Your task to perform on an android device: turn off wifi Image 0: 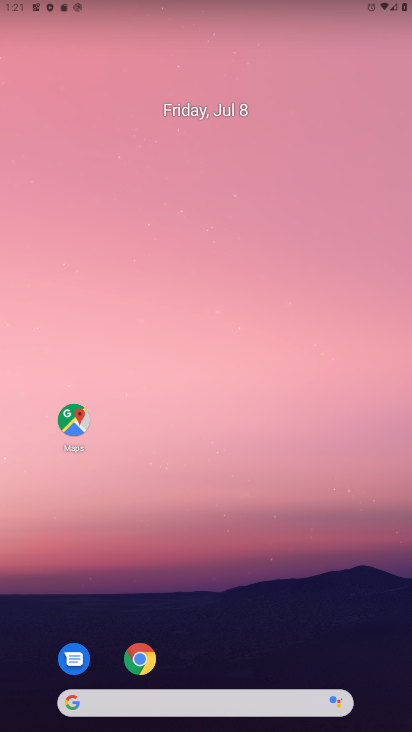
Step 0: drag from (227, 602) to (164, 174)
Your task to perform on an android device: turn off wifi Image 1: 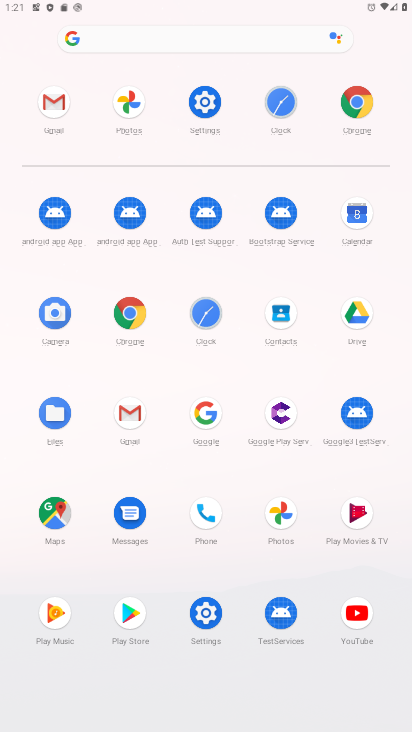
Step 1: click (209, 103)
Your task to perform on an android device: turn off wifi Image 2: 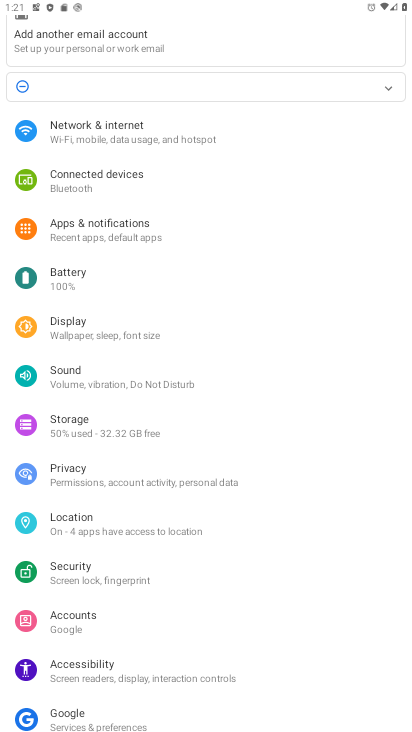
Step 2: click (109, 77)
Your task to perform on an android device: turn off wifi Image 3: 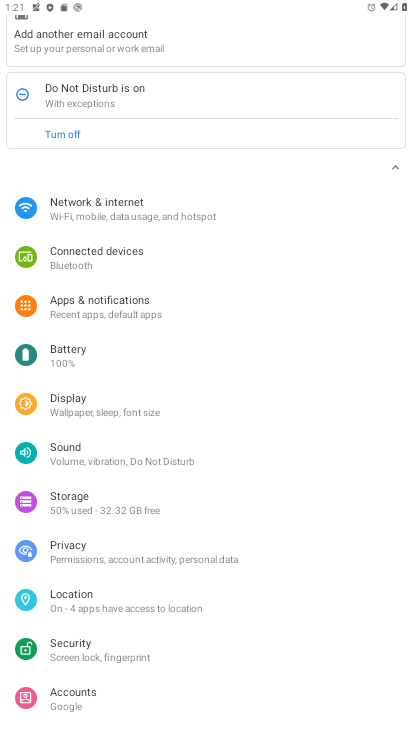
Step 3: click (114, 206)
Your task to perform on an android device: turn off wifi Image 4: 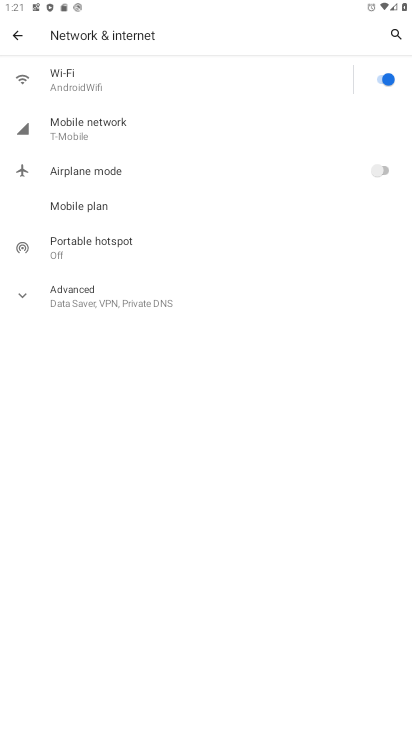
Step 4: click (381, 78)
Your task to perform on an android device: turn off wifi Image 5: 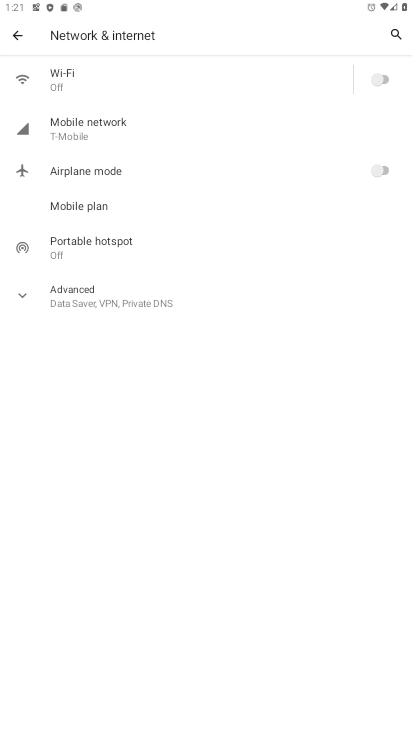
Step 5: task complete